Your task to perform on an android device: make emails show in primary in the gmail app Image 0: 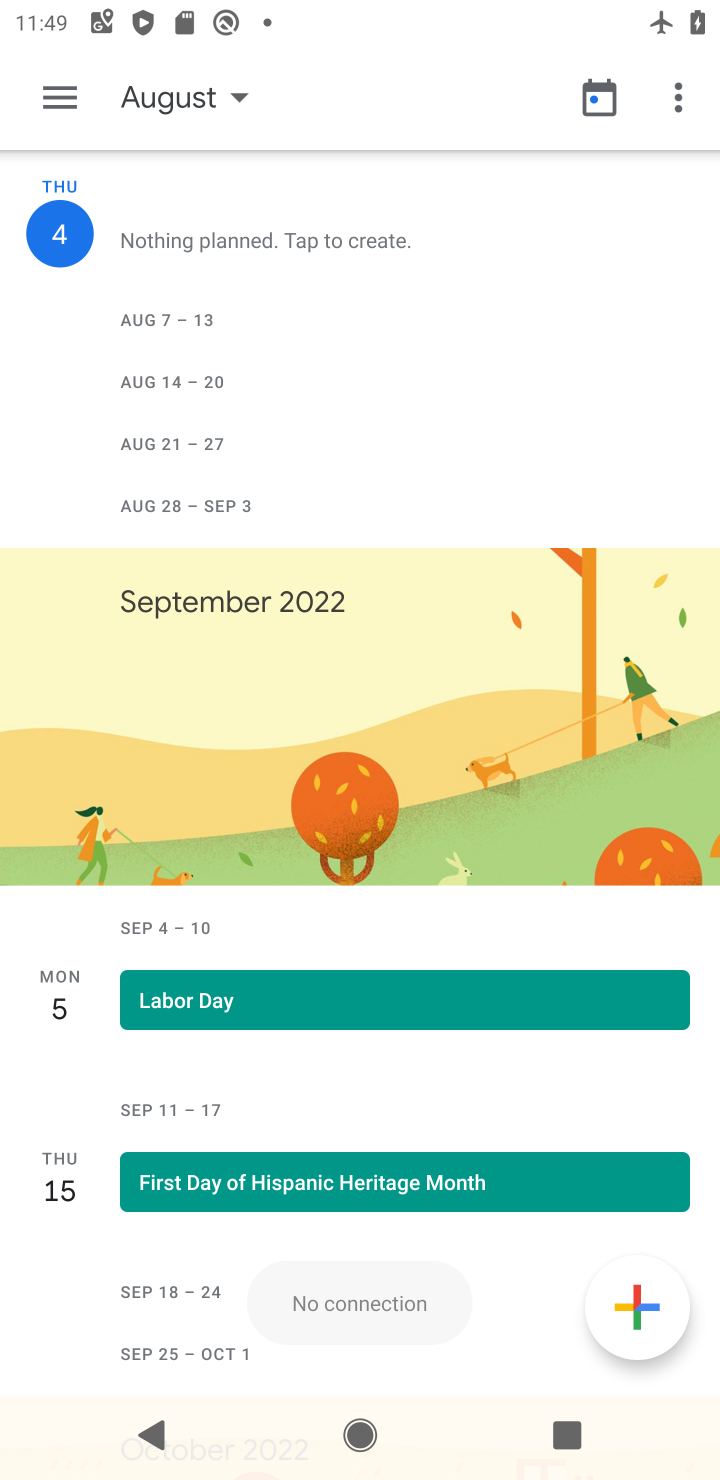
Step 0: press home button
Your task to perform on an android device: make emails show in primary in the gmail app Image 1: 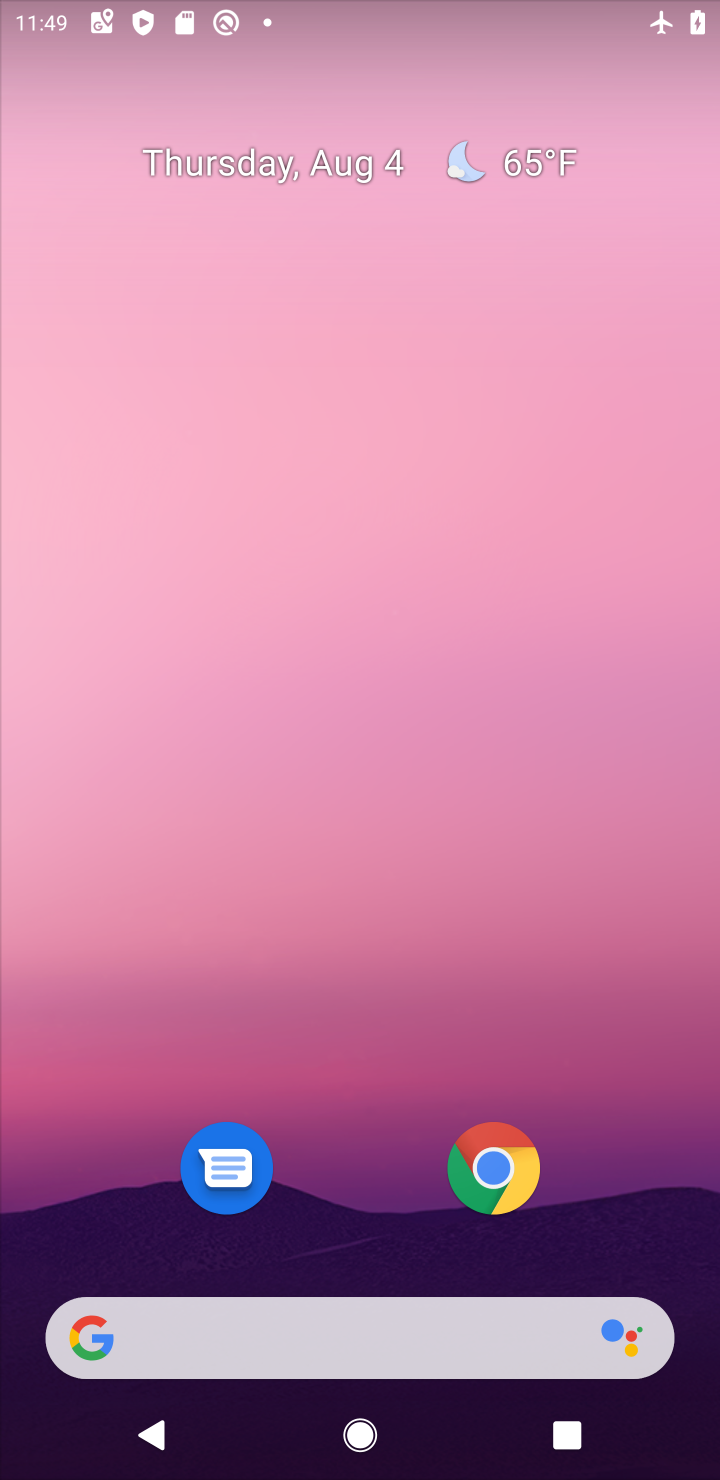
Step 1: drag from (603, 1098) to (438, 32)
Your task to perform on an android device: make emails show in primary in the gmail app Image 2: 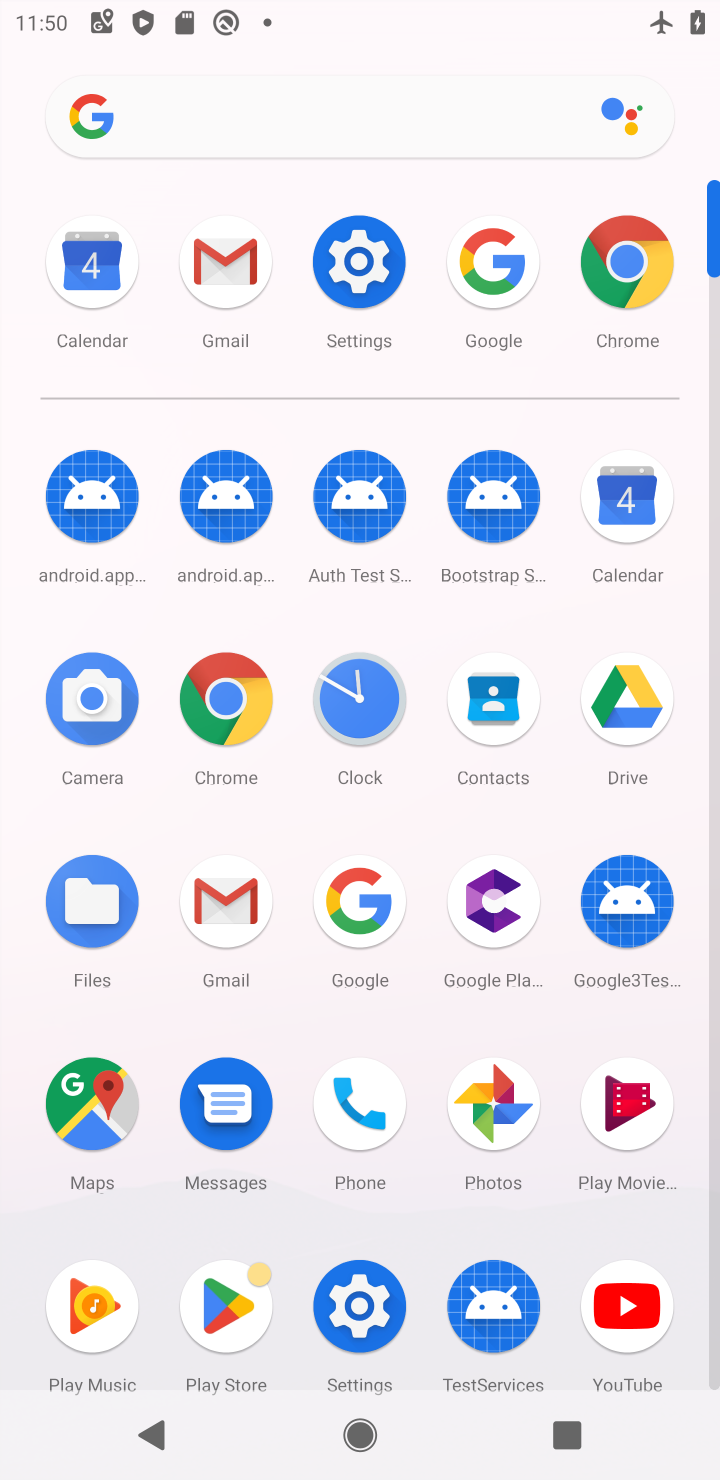
Step 2: click (241, 909)
Your task to perform on an android device: make emails show in primary in the gmail app Image 3: 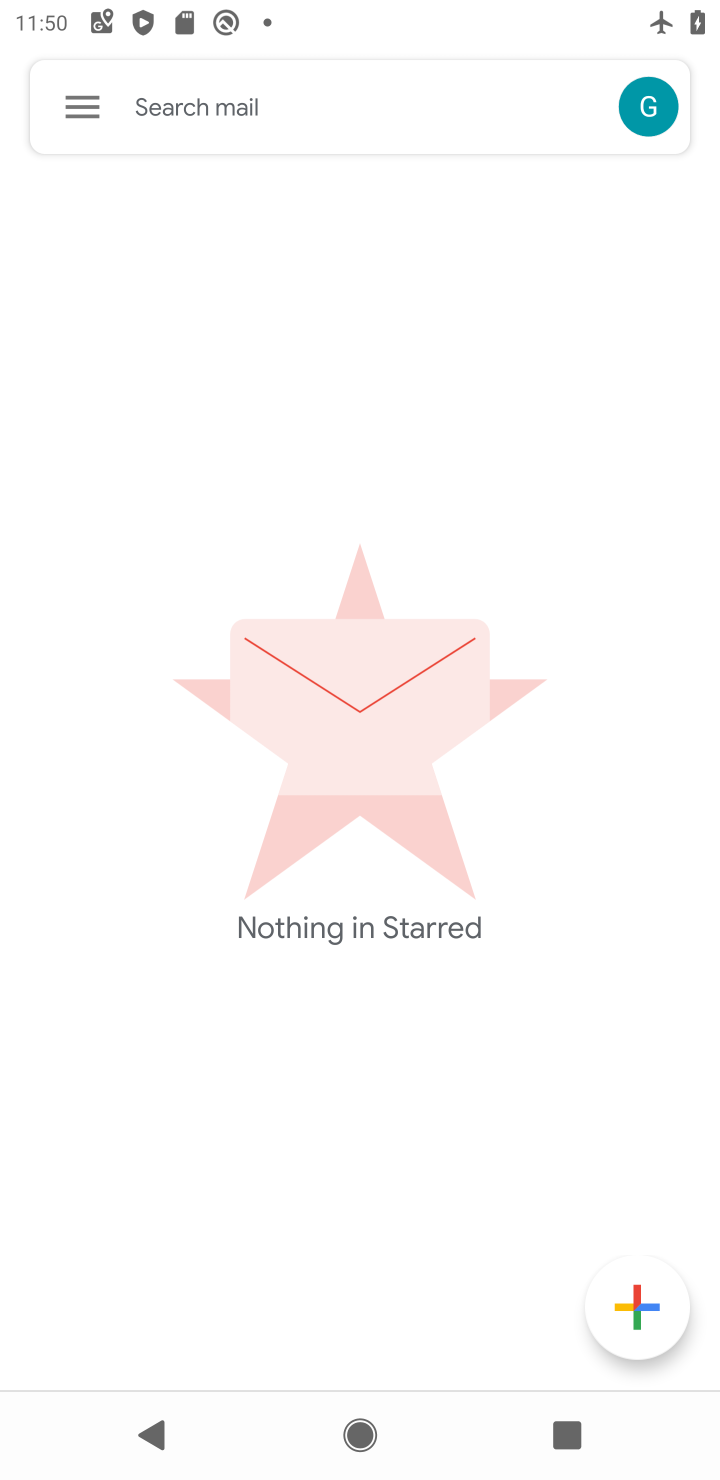
Step 3: task complete